Your task to perform on an android device: Do I have any events tomorrow? Image 0: 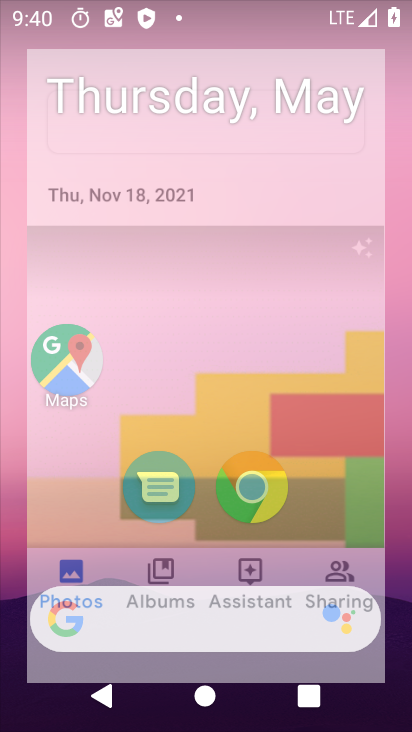
Step 0: drag from (241, 502) to (259, 24)
Your task to perform on an android device: Do I have any events tomorrow? Image 1: 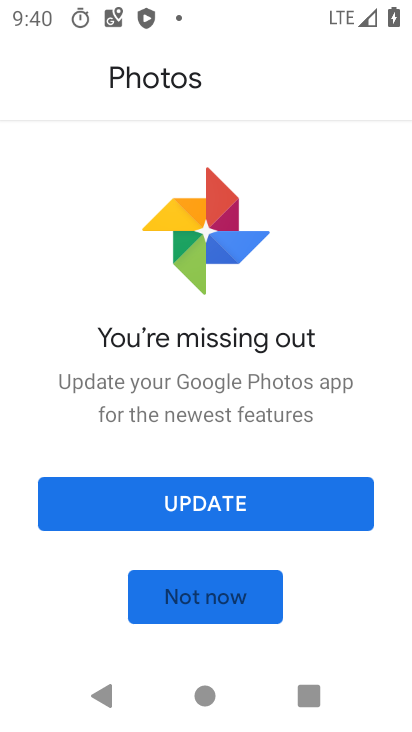
Step 1: press home button
Your task to perform on an android device: Do I have any events tomorrow? Image 2: 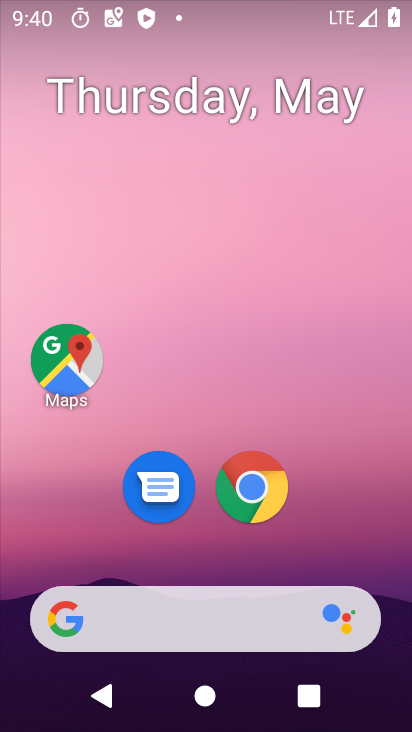
Step 2: drag from (168, 619) to (258, 133)
Your task to perform on an android device: Do I have any events tomorrow? Image 3: 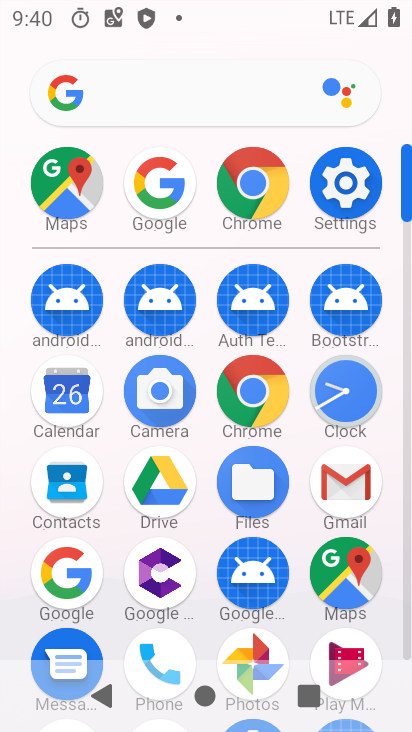
Step 3: click (63, 392)
Your task to perform on an android device: Do I have any events tomorrow? Image 4: 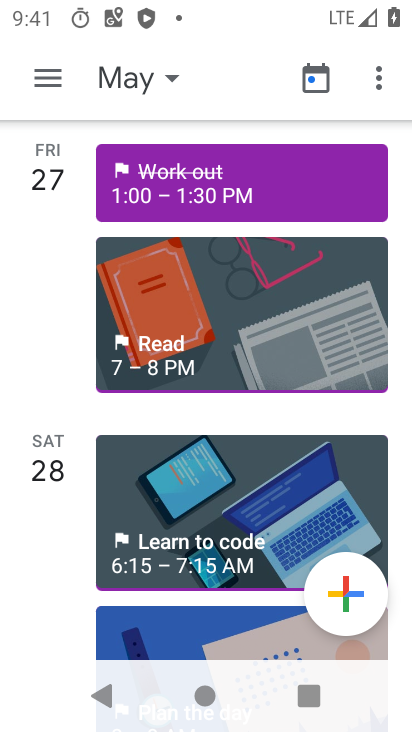
Step 4: task complete